Your task to perform on an android device: empty trash in google photos Image 0: 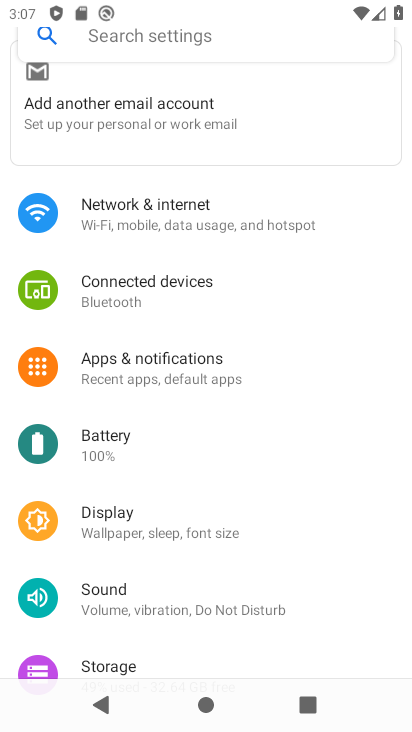
Step 0: press home button
Your task to perform on an android device: empty trash in google photos Image 1: 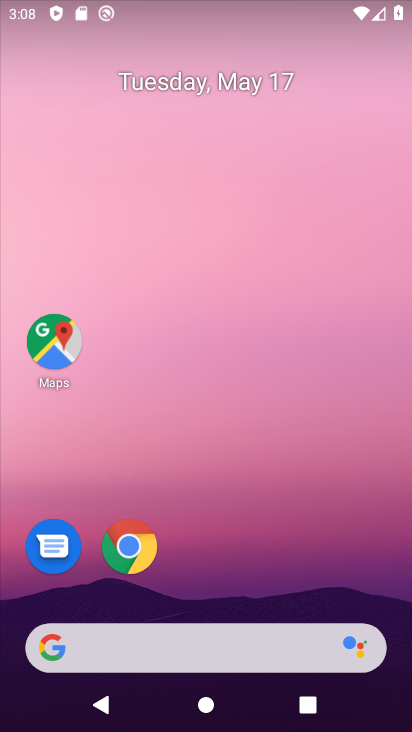
Step 1: drag from (229, 559) to (249, 236)
Your task to perform on an android device: empty trash in google photos Image 2: 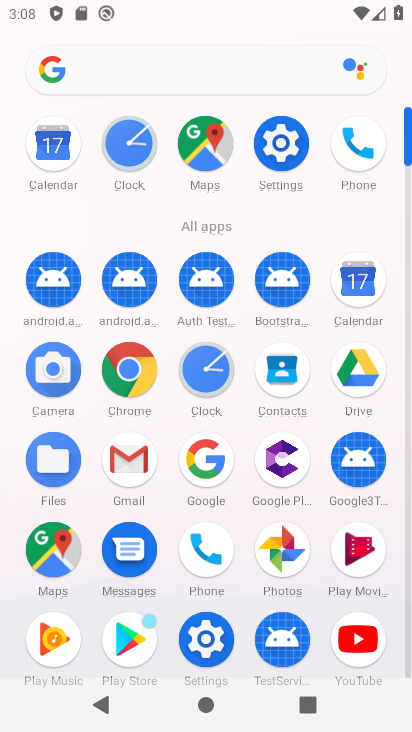
Step 2: click (291, 545)
Your task to perform on an android device: empty trash in google photos Image 3: 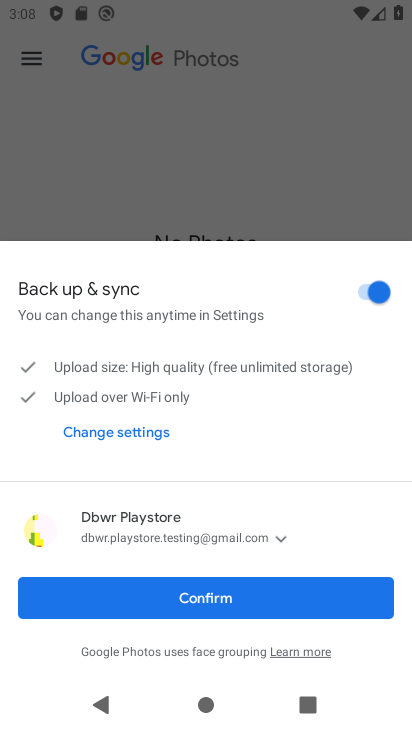
Step 3: click (254, 608)
Your task to perform on an android device: empty trash in google photos Image 4: 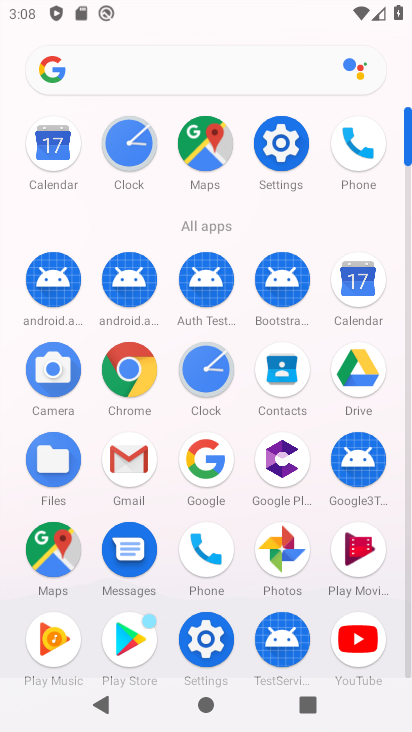
Step 4: click (280, 555)
Your task to perform on an android device: empty trash in google photos Image 5: 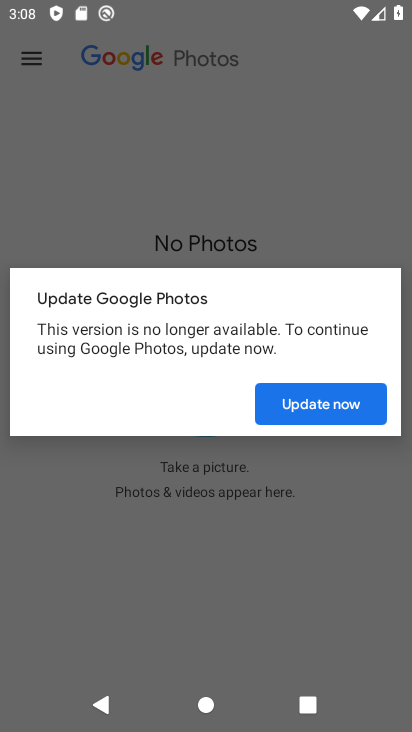
Step 5: click (340, 409)
Your task to perform on an android device: empty trash in google photos Image 6: 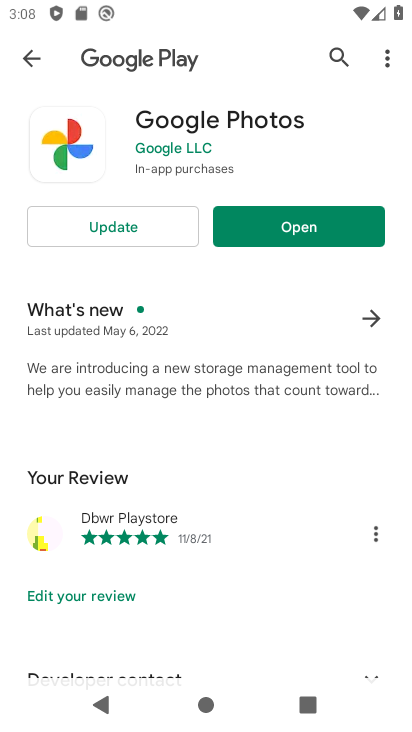
Step 6: click (119, 223)
Your task to perform on an android device: empty trash in google photos Image 7: 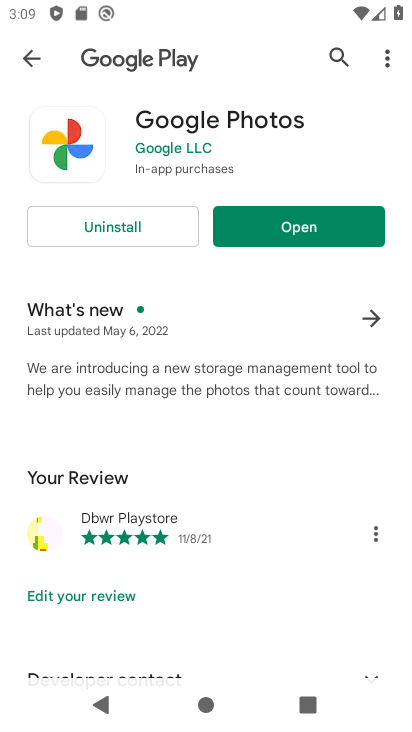
Step 7: click (297, 222)
Your task to perform on an android device: empty trash in google photos Image 8: 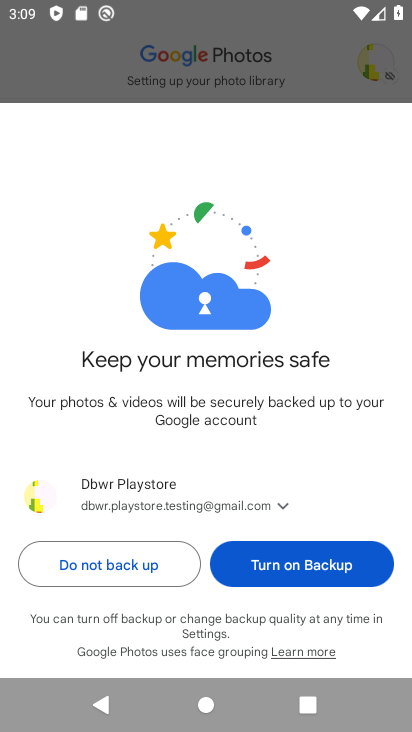
Step 8: click (283, 581)
Your task to perform on an android device: empty trash in google photos Image 9: 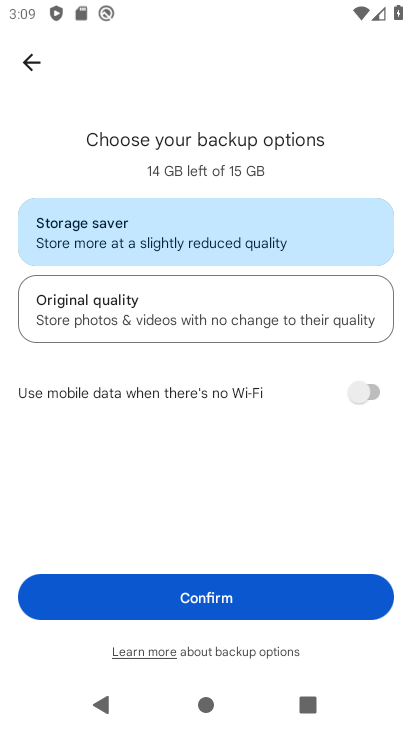
Step 9: click (36, 61)
Your task to perform on an android device: empty trash in google photos Image 10: 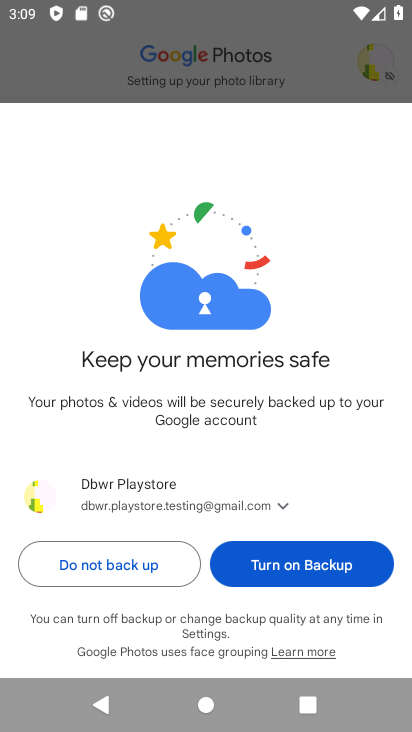
Step 10: click (160, 567)
Your task to perform on an android device: empty trash in google photos Image 11: 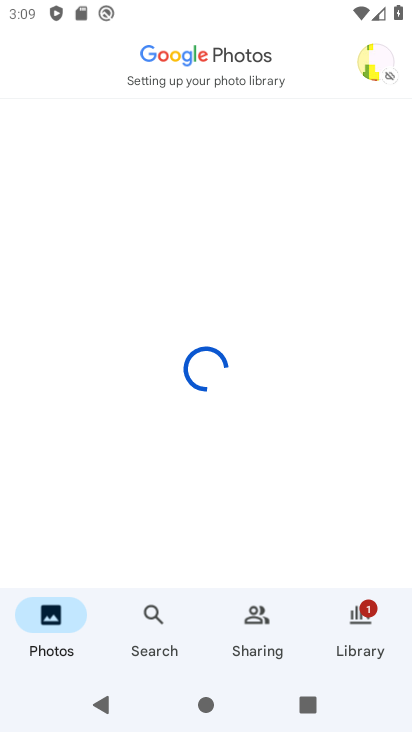
Step 11: click (365, 55)
Your task to perform on an android device: empty trash in google photos Image 12: 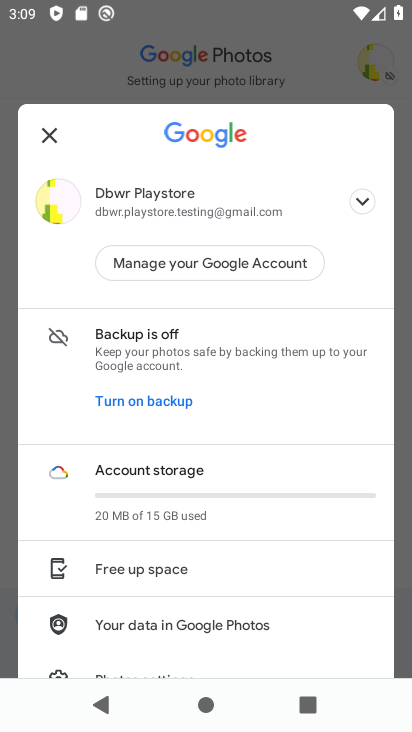
Step 12: click (90, 696)
Your task to perform on an android device: empty trash in google photos Image 13: 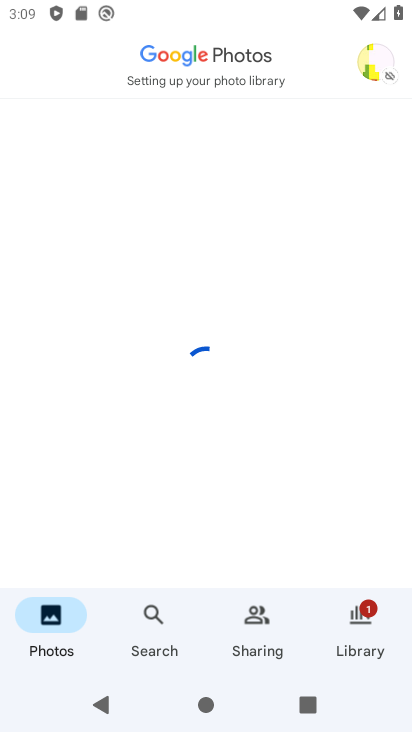
Step 13: click (369, 622)
Your task to perform on an android device: empty trash in google photos Image 14: 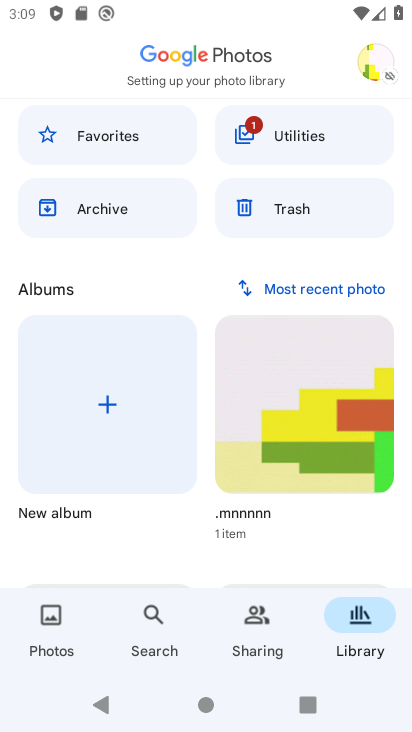
Step 14: click (256, 204)
Your task to perform on an android device: empty trash in google photos Image 15: 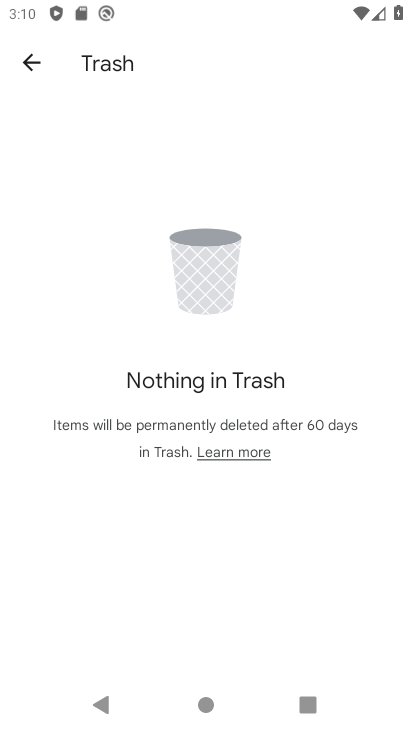
Step 15: task complete